Your task to perform on an android device: Go to Google maps Image 0: 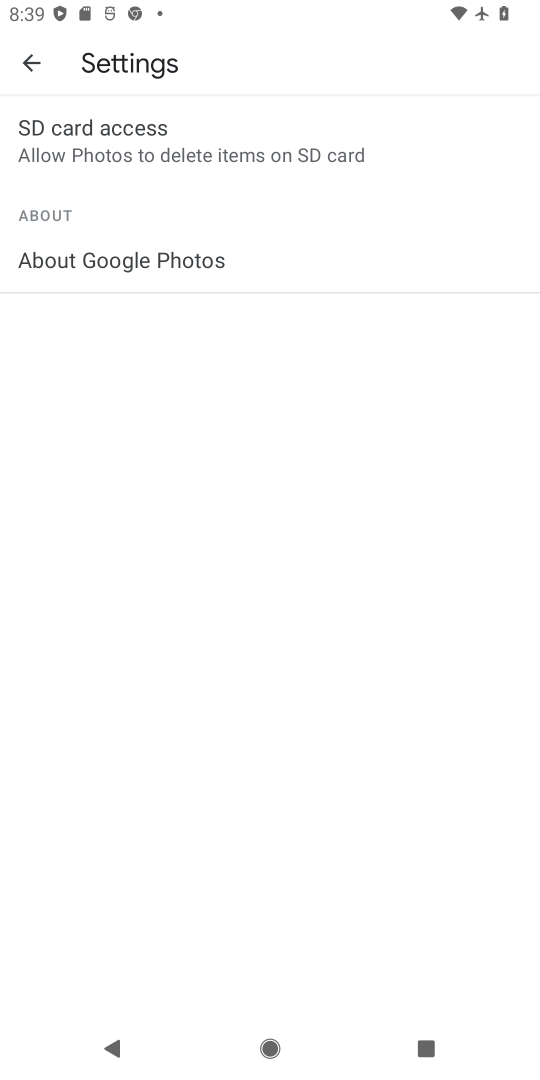
Step 0: press home button
Your task to perform on an android device: Go to Google maps Image 1: 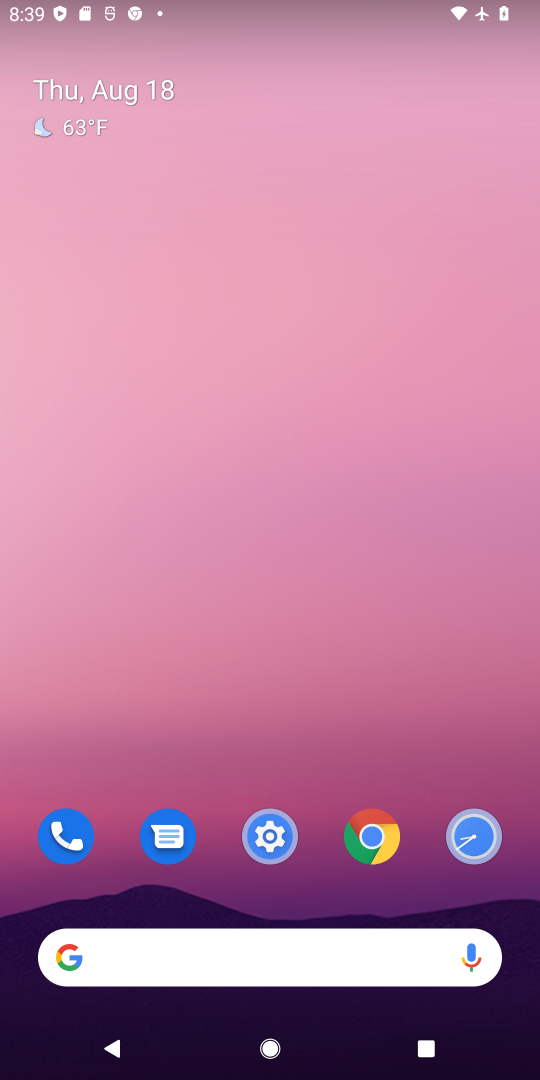
Step 1: drag from (259, 737) to (273, 201)
Your task to perform on an android device: Go to Google maps Image 2: 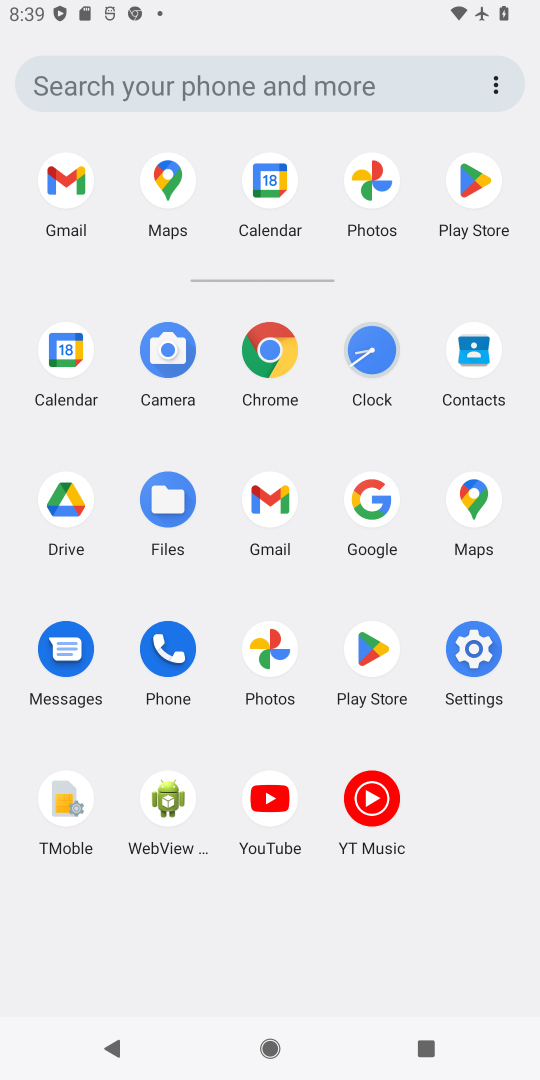
Step 2: click (470, 526)
Your task to perform on an android device: Go to Google maps Image 3: 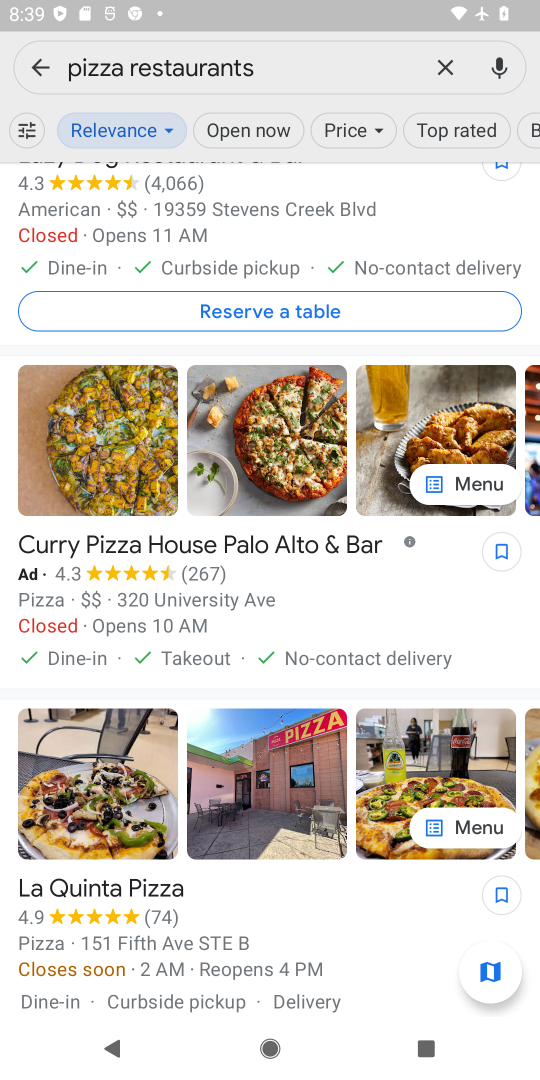
Step 3: task complete